Your task to perform on an android device: Open the calendar and show me this week's events? Image 0: 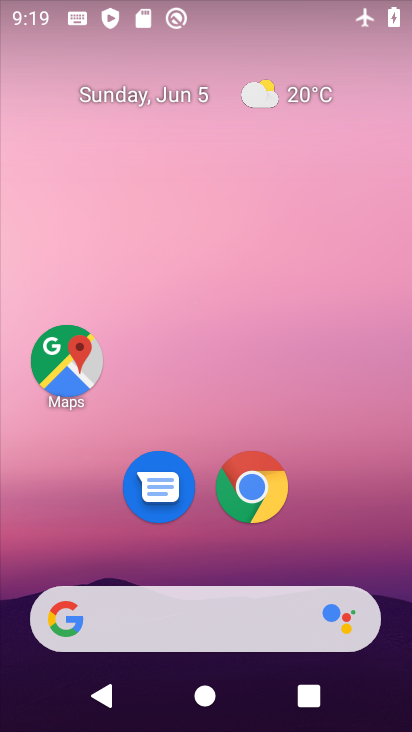
Step 0: drag from (217, 625) to (192, 128)
Your task to perform on an android device: Open the calendar and show me this week's events? Image 1: 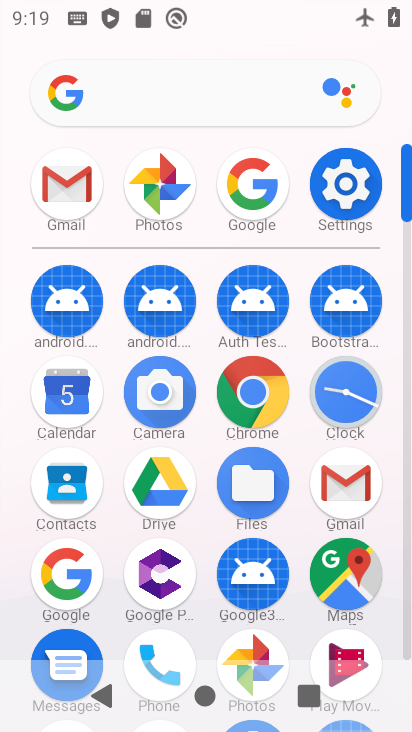
Step 1: click (75, 409)
Your task to perform on an android device: Open the calendar and show me this week's events? Image 2: 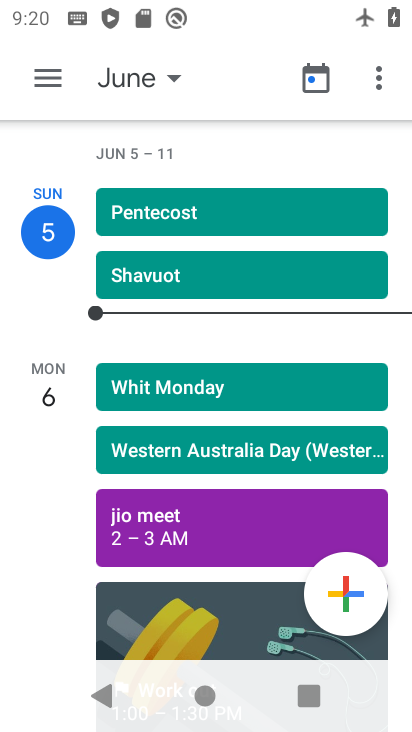
Step 2: click (158, 74)
Your task to perform on an android device: Open the calendar and show me this week's events? Image 3: 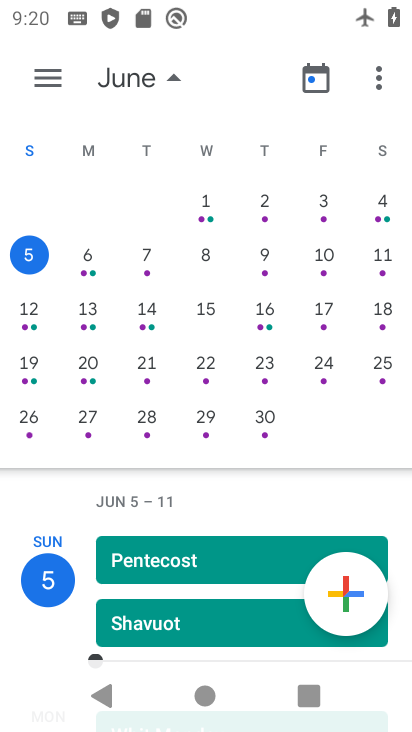
Step 3: click (29, 326)
Your task to perform on an android device: Open the calendar and show me this week's events? Image 4: 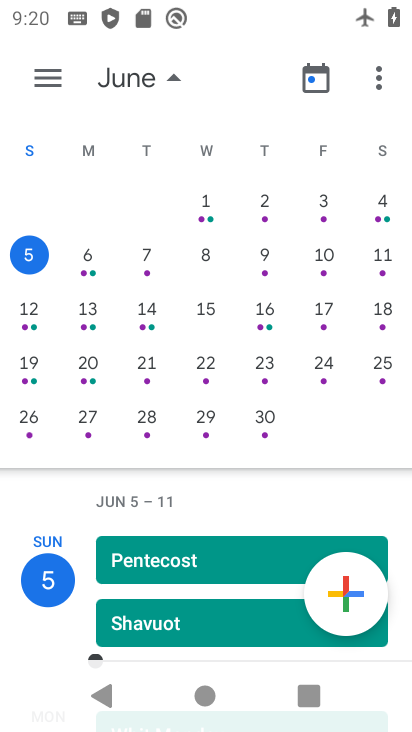
Step 4: click (33, 319)
Your task to perform on an android device: Open the calendar and show me this week's events? Image 5: 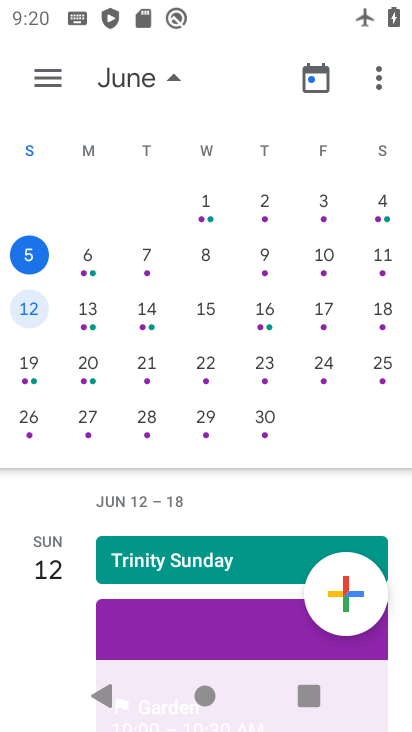
Step 5: task complete